Your task to perform on an android device: turn off location Image 0: 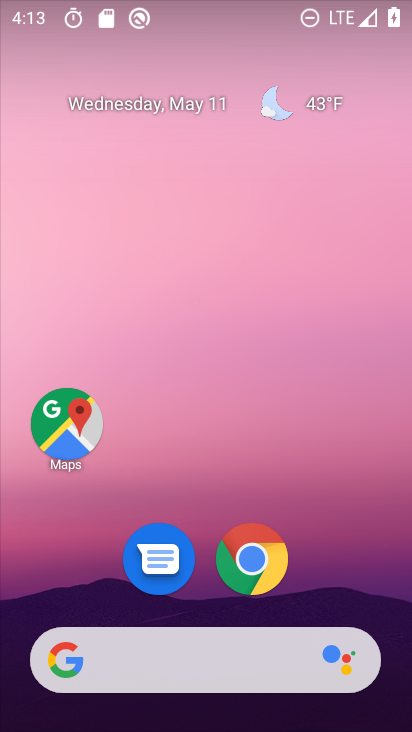
Step 0: drag from (324, 477) to (226, 39)
Your task to perform on an android device: turn off location Image 1: 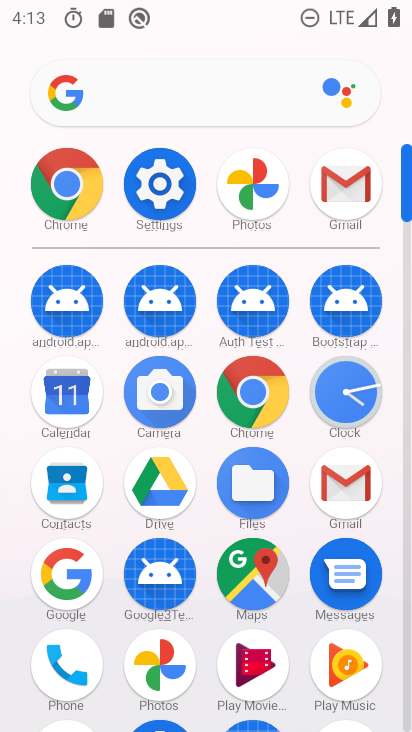
Step 1: click (168, 191)
Your task to perform on an android device: turn off location Image 2: 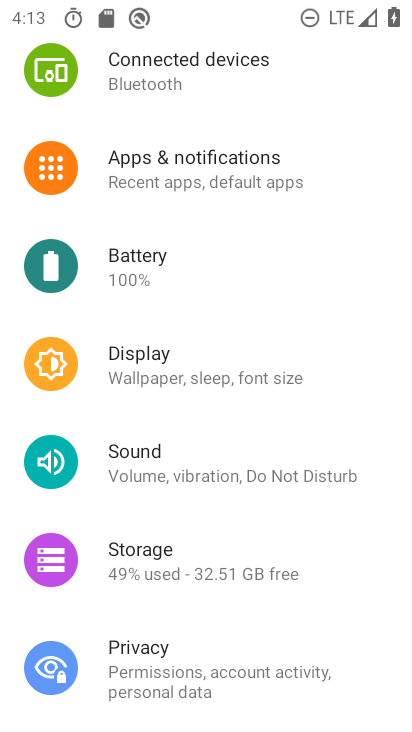
Step 2: drag from (228, 579) to (204, 172)
Your task to perform on an android device: turn off location Image 3: 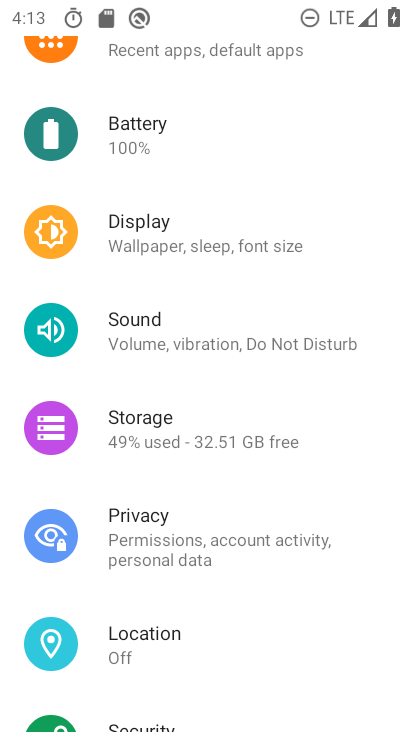
Step 3: click (193, 638)
Your task to perform on an android device: turn off location Image 4: 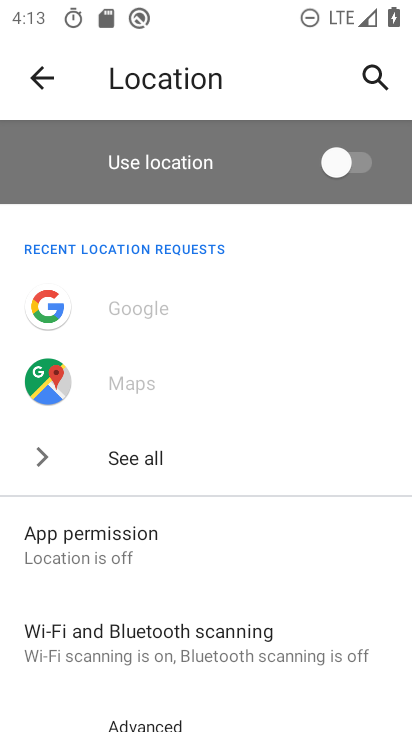
Step 4: task complete